Your task to perform on an android device: delete browsing data in the chrome app Image 0: 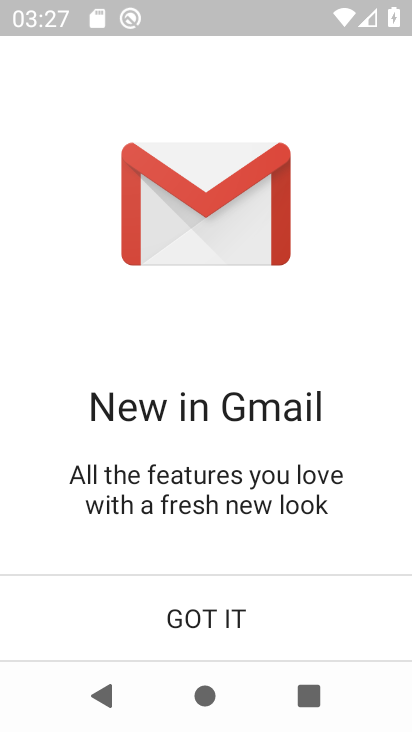
Step 0: press back button
Your task to perform on an android device: delete browsing data in the chrome app Image 1: 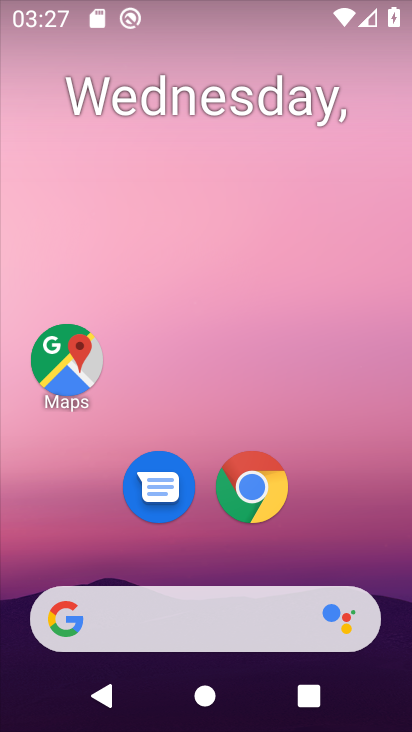
Step 1: click (252, 484)
Your task to perform on an android device: delete browsing data in the chrome app Image 2: 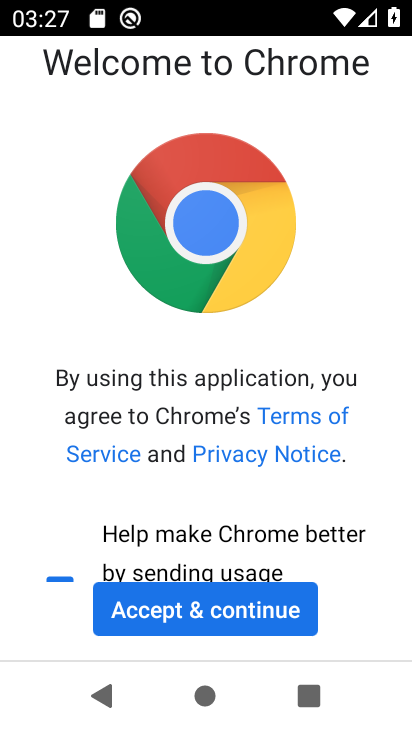
Step 2: click (274, 617)
Your task to perform on an android device: delete browsing data in the chrome app Image 3: 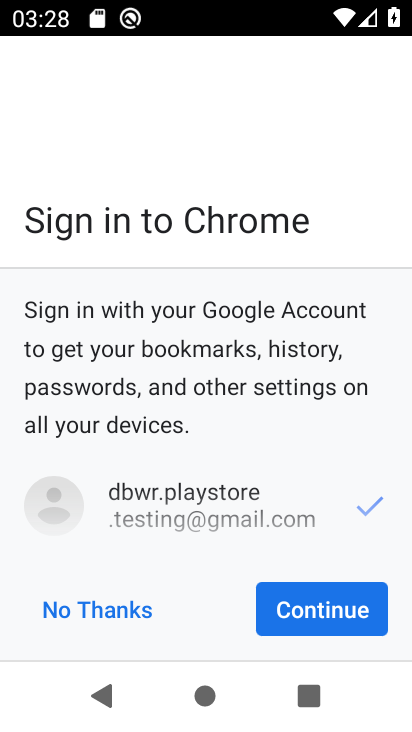
Step 3: click (301, 601)
Your task to perform on an android device: delete browsing data in the chrome app Image 4: 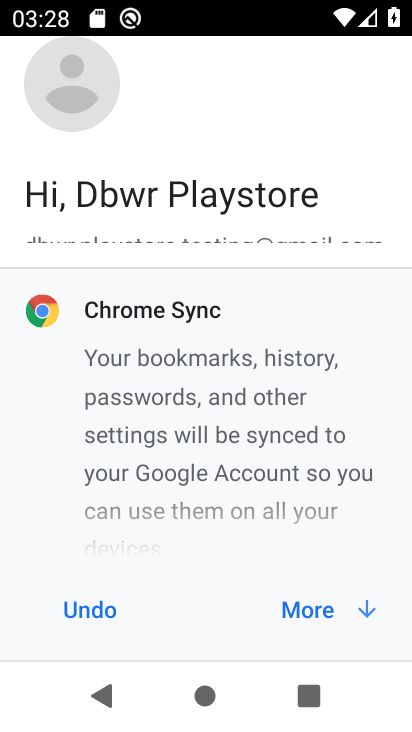
Step 4: click (301, 601)
Your task to perform on an android device: delete browsing data in the chrome app Image 5: 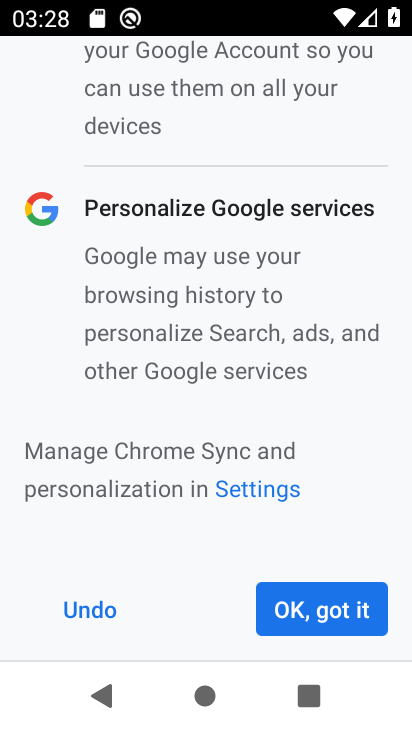
Step 5: click (301, 601)
Your task to perform on an android device: delete browsing data in the chrome app Image 6: 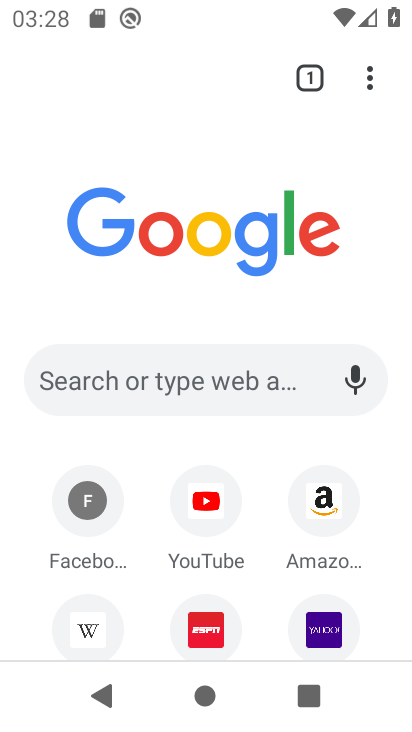
Step 6: click (372, 78)
Your task to perform on an android device: delete browsing data in the chrome app Image 7: 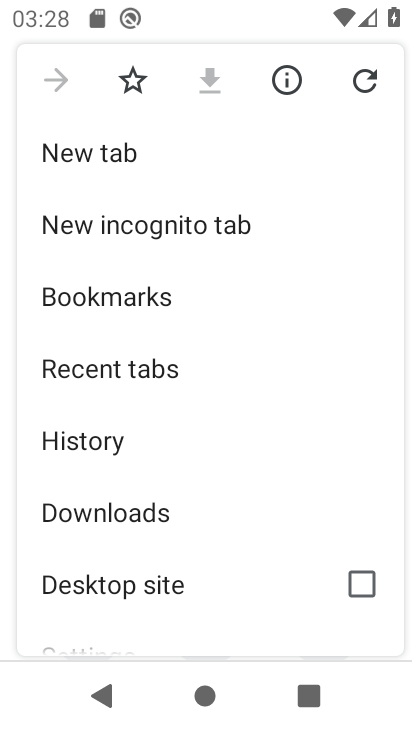
Step 7: drag from (190, 481) to (206, 386)
Your task to perform on an android device: delete browsing data in the chrome app Image 8: 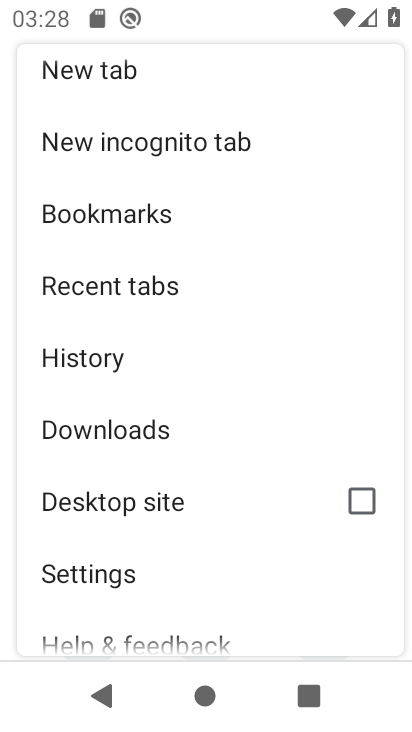
Step 8: drag from (181, 510) to (200, 424)
Your task to perform on an android device: delete browsing data in the chrome app Image 9: 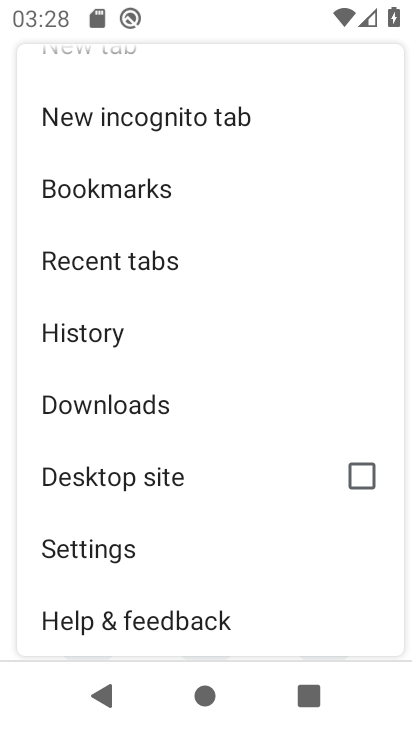
Step 9: click (83, 547)
Your task to perform on an android device: delete browsing data in the chrome app Image 10: 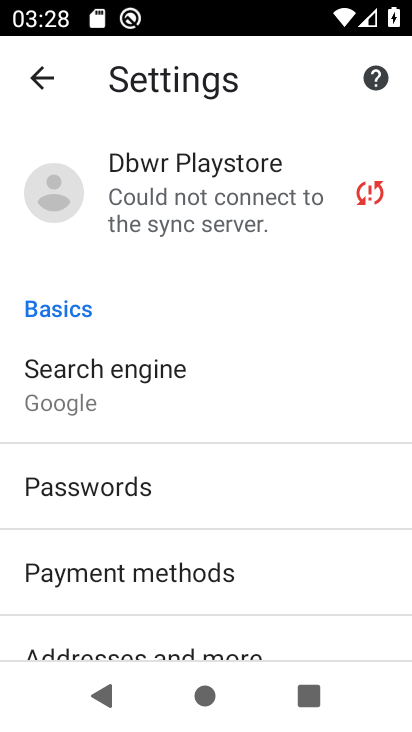
Step 10: drag from (128, 537) to (134, 451)
Your task to perform on an android device: delete browsing data in the chrome app Image 11: 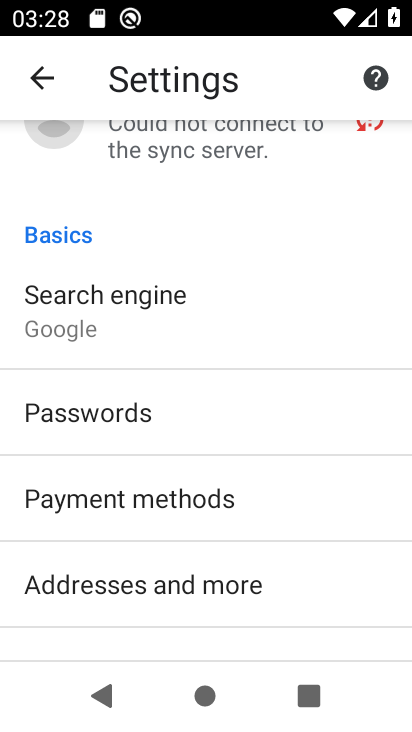
Step 11: drag from (136, 541) to (146, 460)
Your task to perform on an android device: delete browsing data in the chrome app Image 12: 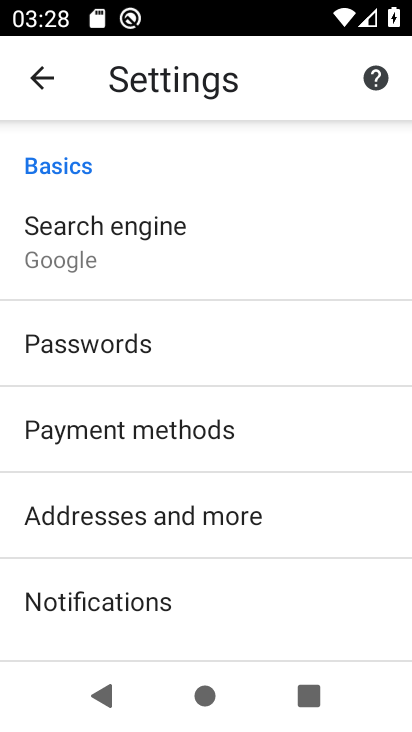
Step 12: drag from (125, 611) to (162, 513)
Your task to perform on an android device: delete browsing data in the chrome app Image 13: 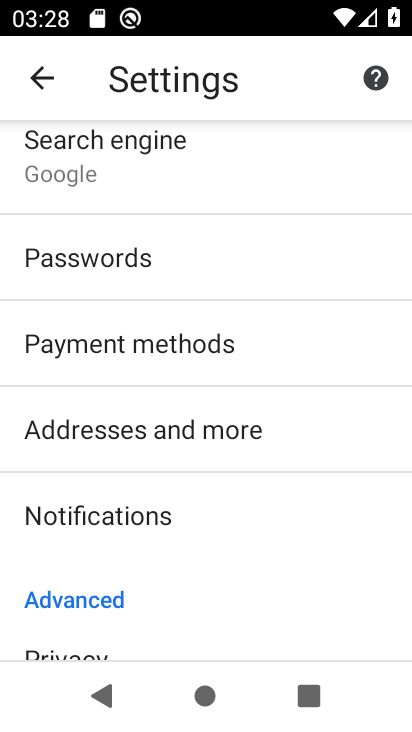
Step 13: drag from (148, 594) to (204, 478)
Your task to perform on an android device: delete browsing data in the chrome app Image 14: 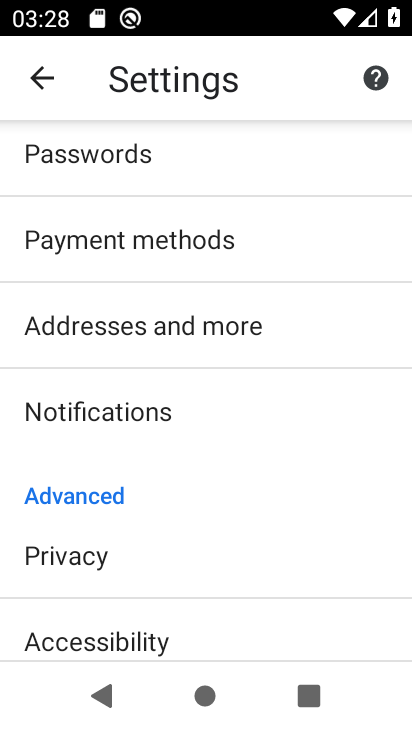
Step 14: click (98, 557)
Your task to perform on an android device: delete browsing data in the chrome app Image 15: 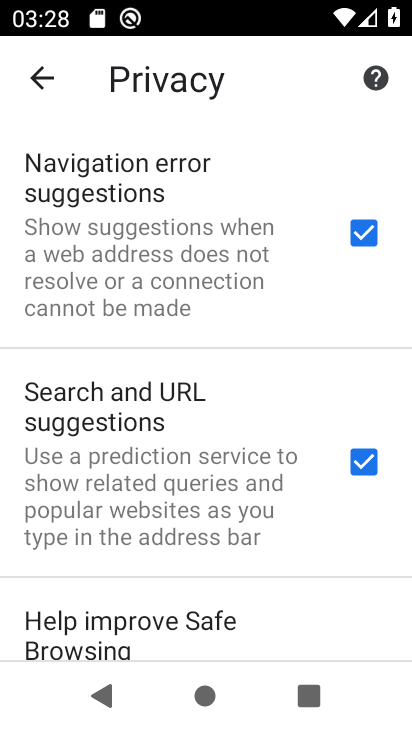
Step 15: drag from (99, 583) to (192, 469)
Your task to perform on an android device: delete browsing data in the chrome app Image 16: 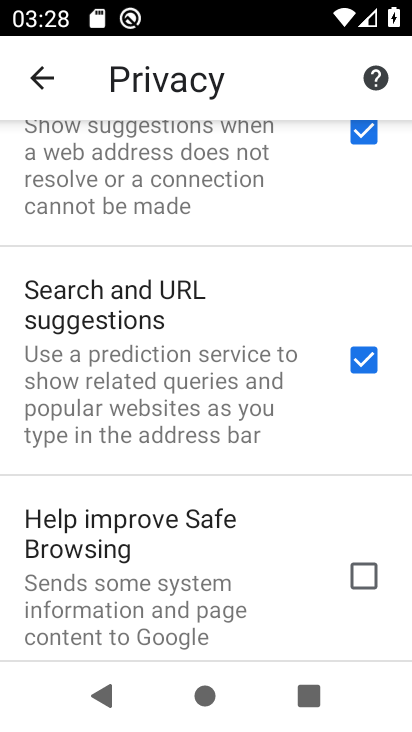
Step 16: drag from (151, 571) to (200, 457)
Your task to perform on an android device: delete browsing data in the chrome app Image 17: 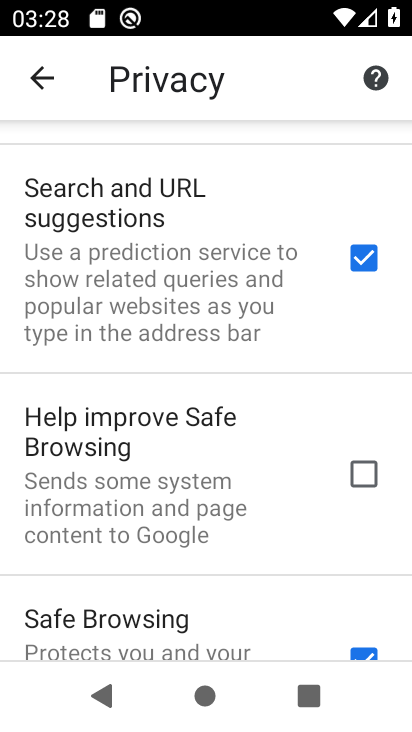
Step 17: drag from (170, 603) to (253, 444)
Your task to perform on an android device: delete browsing data in the chrome app Image 18: 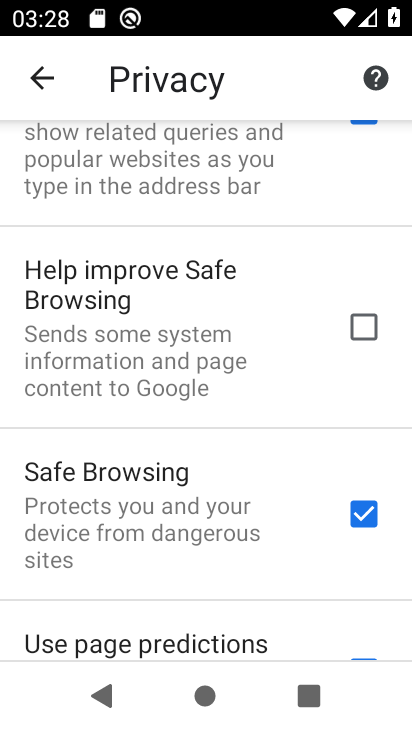
Step 18: drag from (153, 572) to (226, 443)
Your task to perform on an android device: delete browsing data in the chrome app Image 19: 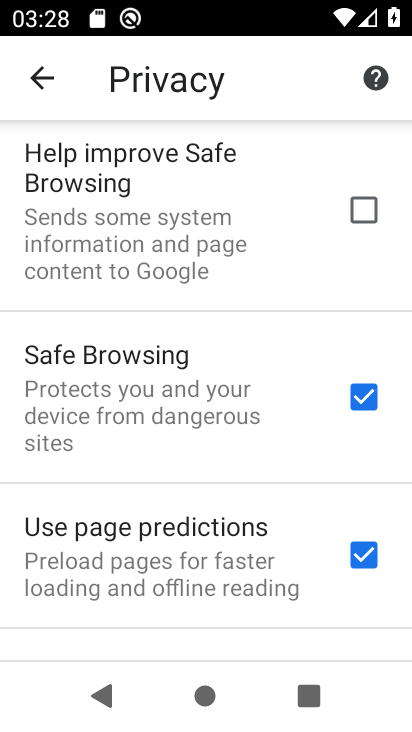
Step 19: drag from (165, 580) to (233, 466)
Your task to perform on an android device: delete browsing data in the chrome app Image 20: 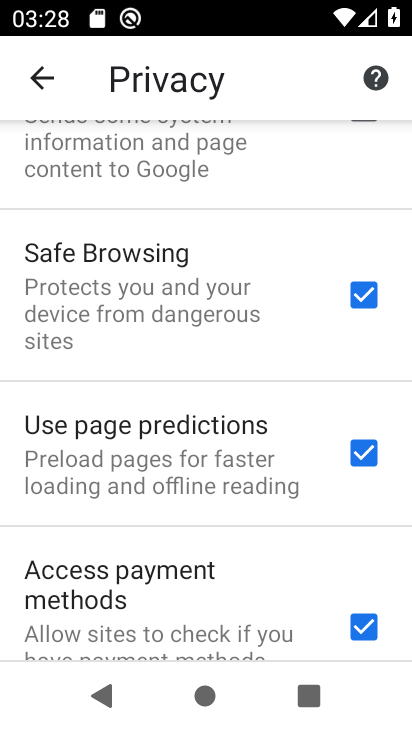
Step 20: drag from (153, 599) to (235, 461)
Your task to perform on an android device: delete browsing data in the chrome app Image 21: 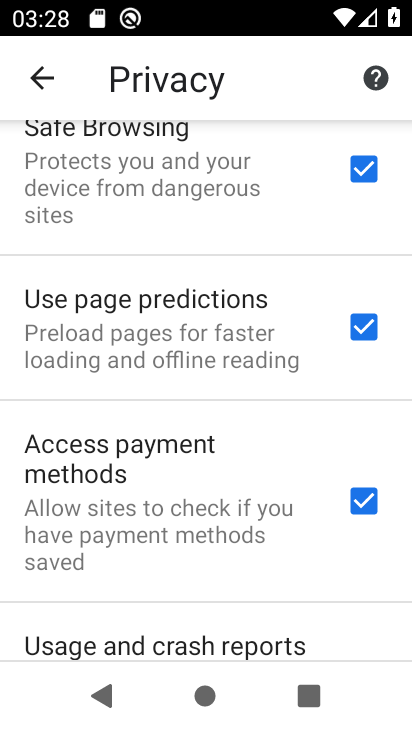
Step 21: drag from (154, 601) to (245, 446)
Your task to perform on an android device: delete browsing data in the chrome app Image 22: 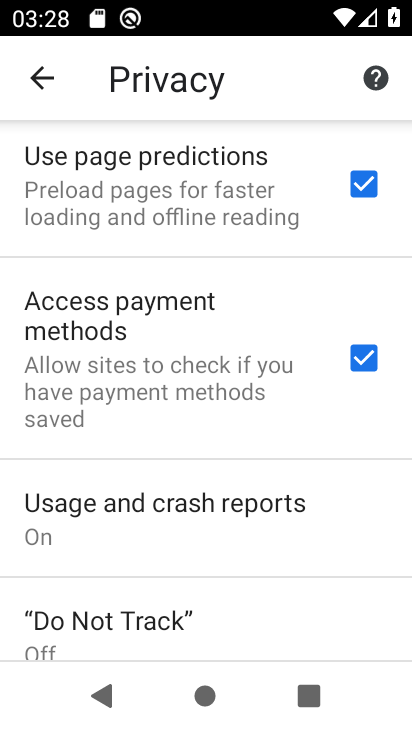
Step 22: drag from (149, 592) to (257, 444)
Your task to perform on an android device: delete browsing data in the chrome app Image 23: 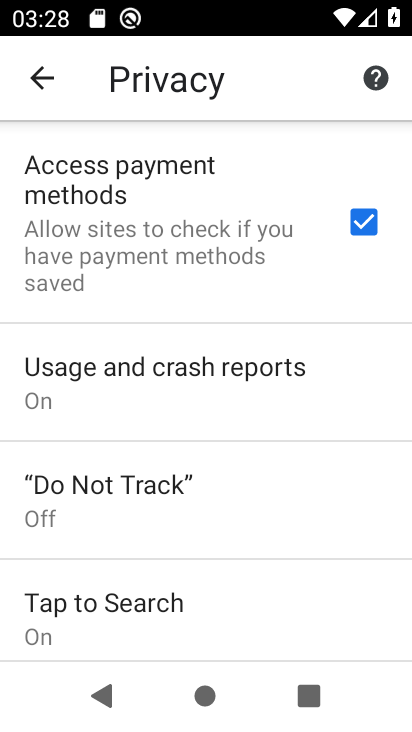
Step 23: drag from (130, 602) to (244, 462)
Your task to perform on an android device: delete browsing data in the chrome app Image 24: 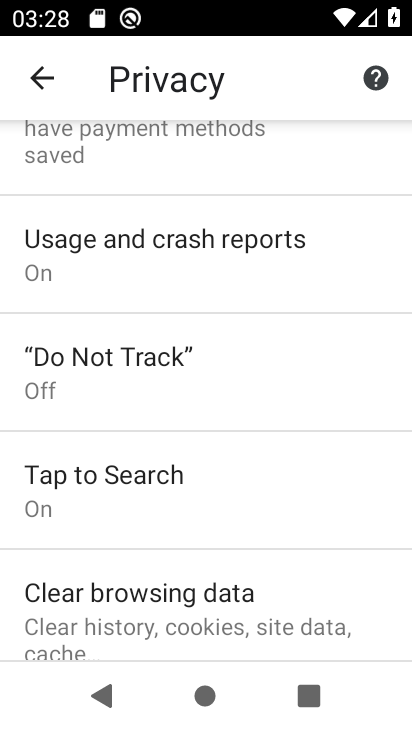
Step 24: click (155, 591)
Your task to perform on an android device: delete browsing data in the chrome app Image 25: 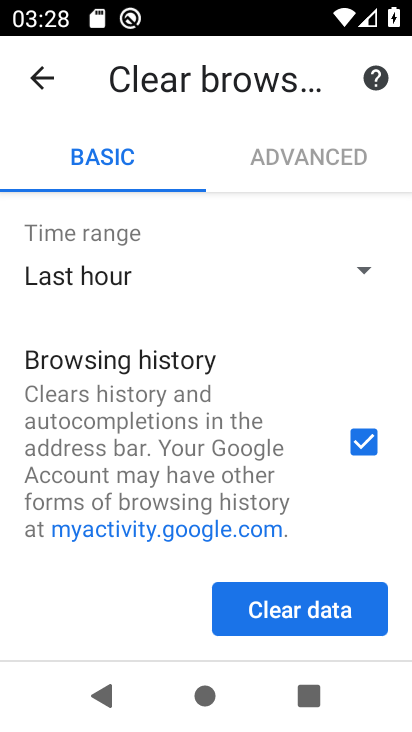
Step 25: click (272, 615)
Your task to perform on an android device: delete browsing data in the chrome app Image 26: 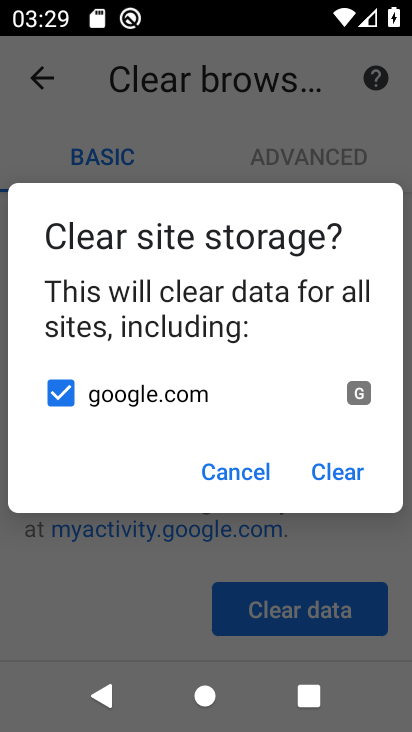
Step 26: click (337, 470)
Your task to perform on an android device: delete browsing data in the chrome app Image 27: 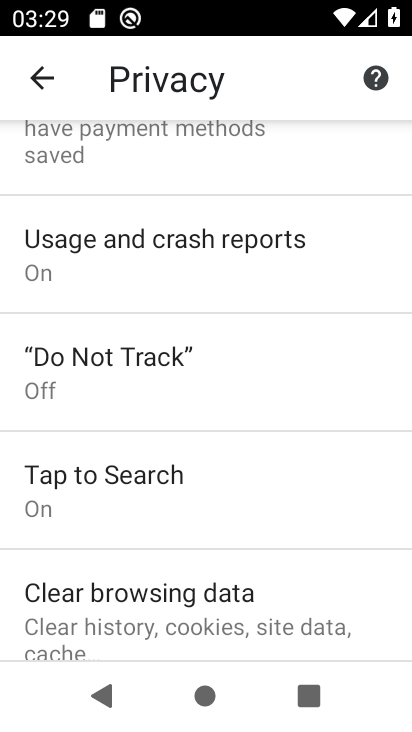
Step 27: task complete